Your task to perform on an android device: add a contact in the contacts app Image 0: 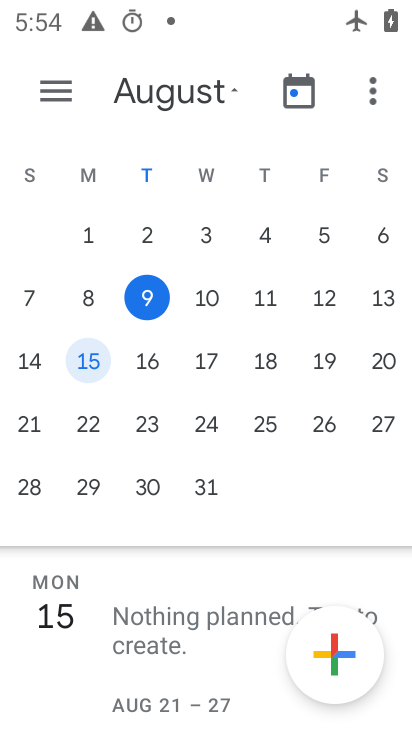
Step 0: press home button
Your task to perform on an android device: add a contact in the contacts app Image 1: 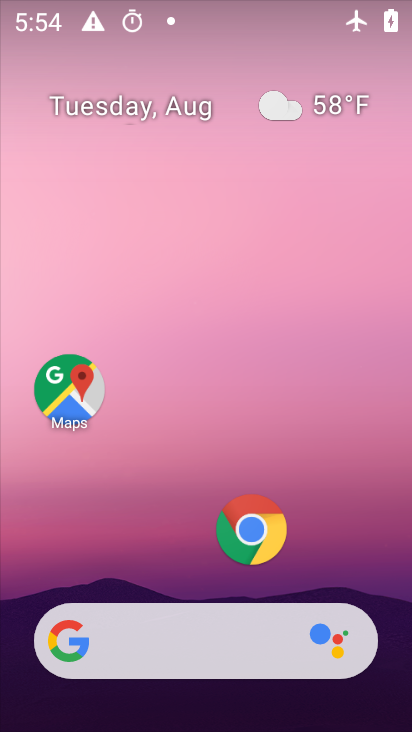
Step 1: drag from (161, 557) to (179, 173)
Your task to perform on an android device: add a contact in the contacts app Image 2: 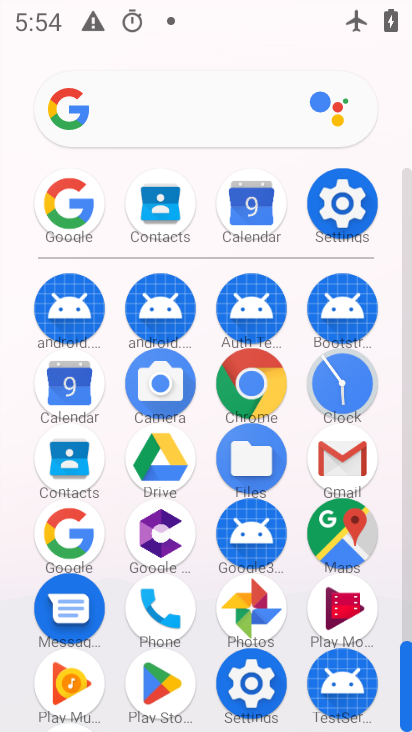
Step 2: click (160, 222)
Your task to perform on an android device: add a contact in the contacts app Image 3: 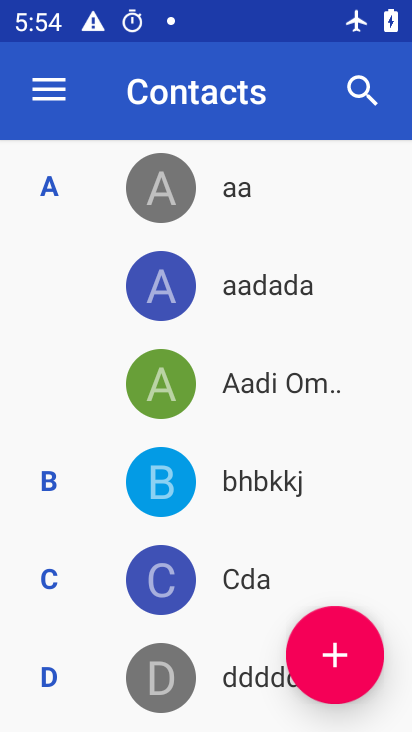
Step 3: drag from (189, 599) to (221, 232)
Your task to perform on an android device: add a contact in the contacts app Image 4: 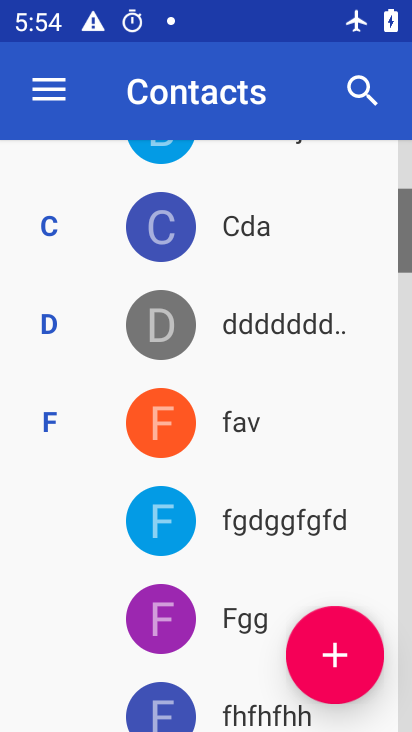
Step 4: drag from (243, 507) to (243, 240)
Your task to perform on an android device: add a contact in the contacts app Image 5: 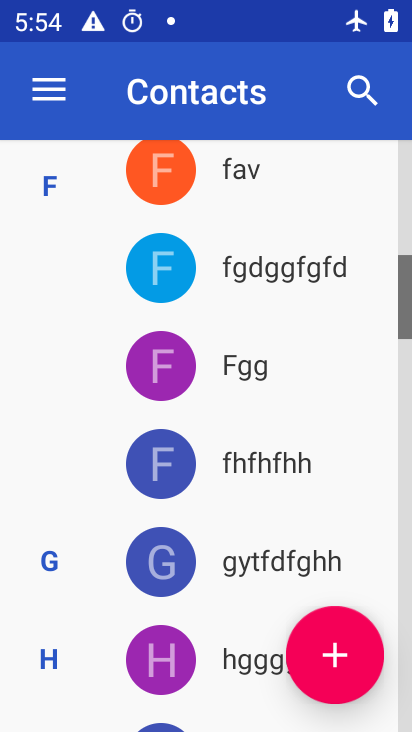
Step 5: click (349, 643)
Your task to perform on an android device: add a contact in the contacts app Image 6: 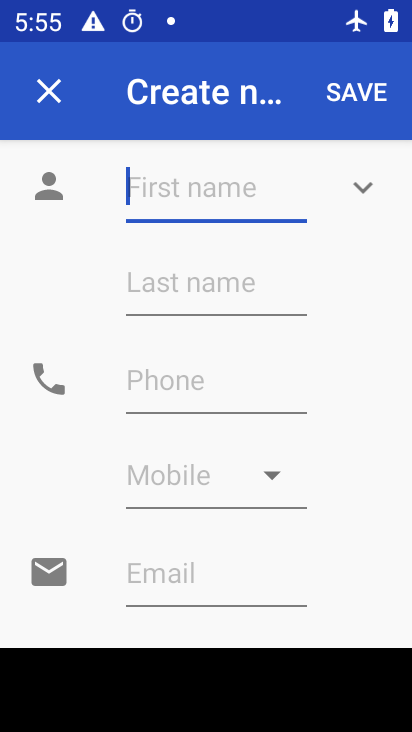
Step 6: click (353, 591)
Your task to perform on an android device: add a contact in the contacts app Image 7: 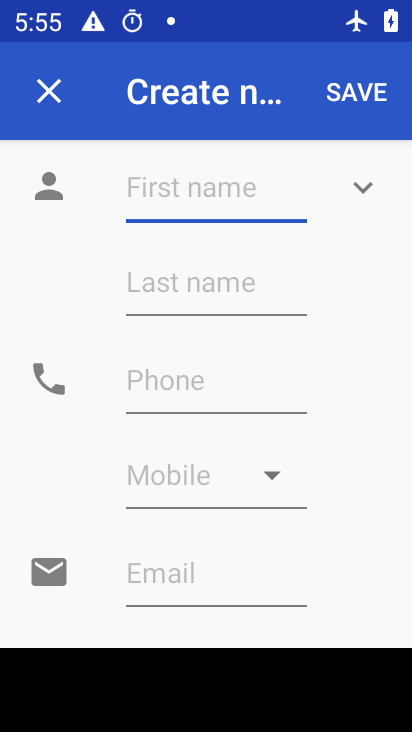
Step 7: type "fhgfhgfh"
Your task to perform on an android device: add a contact in the contacts app Image 8: 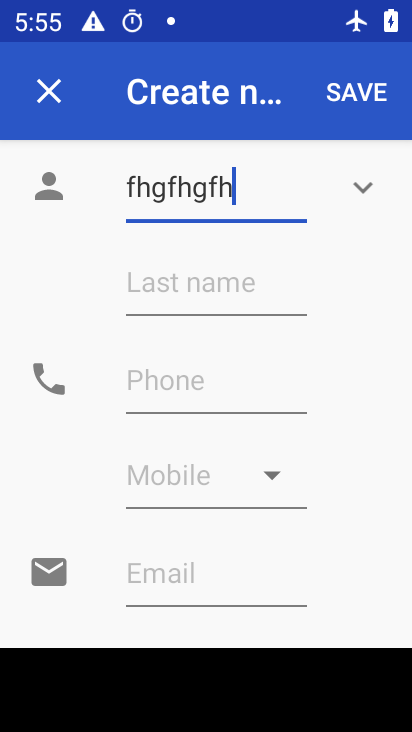
Step 8: click (162, 398)
Your task to perform on an android device: add a contact in the contacts app Image 9: 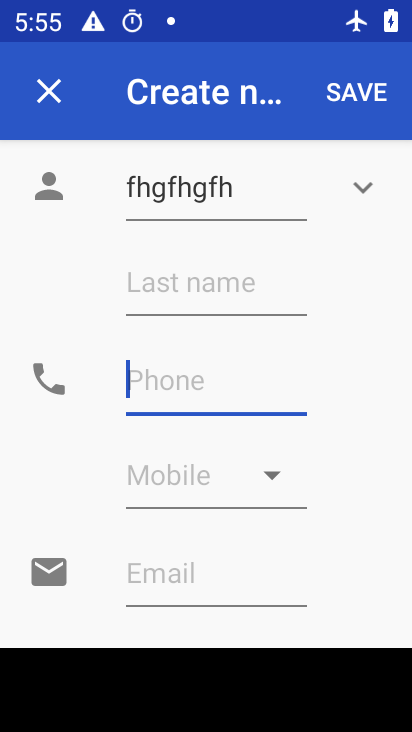
Step 9: type "95657565464"
Your task to perform on an android device: add a contact in the contacts app Image 10: 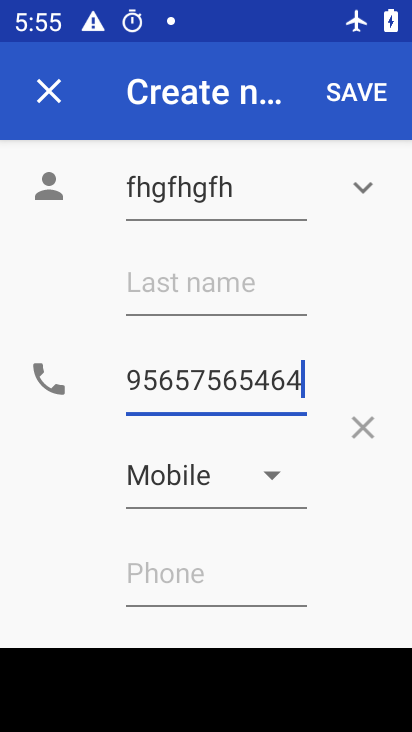
Step 10: click (378, 91)
Your task to perform on an android device: add a contact in the contacts app Image 11: 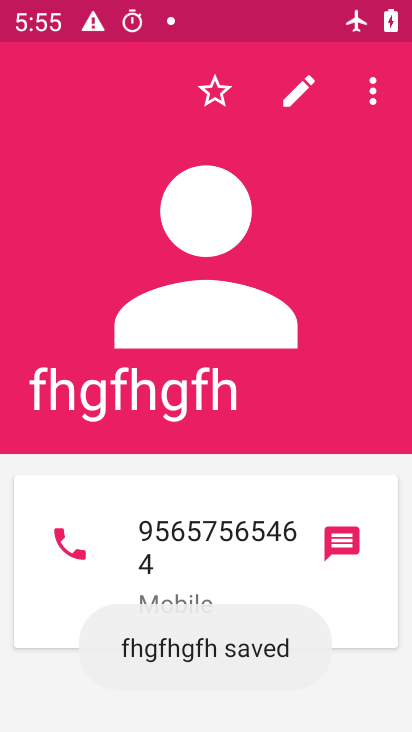
Step 11: task complete